Your task to perform on an android device: toggle wifi Image 0: 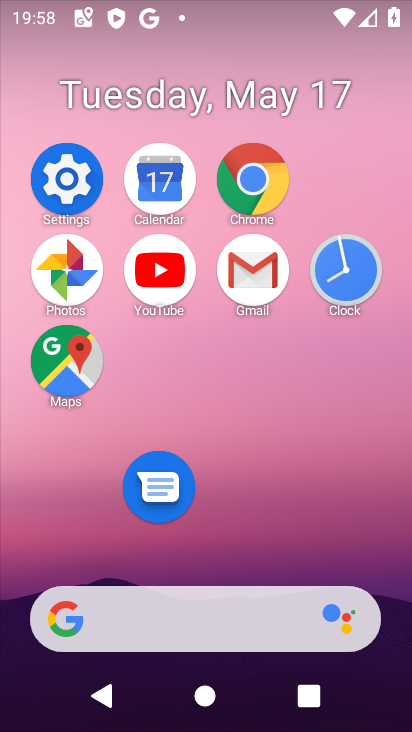
Step 0: click (49, 169)
Your task to perform on an android device: toggle wifi Image 1: 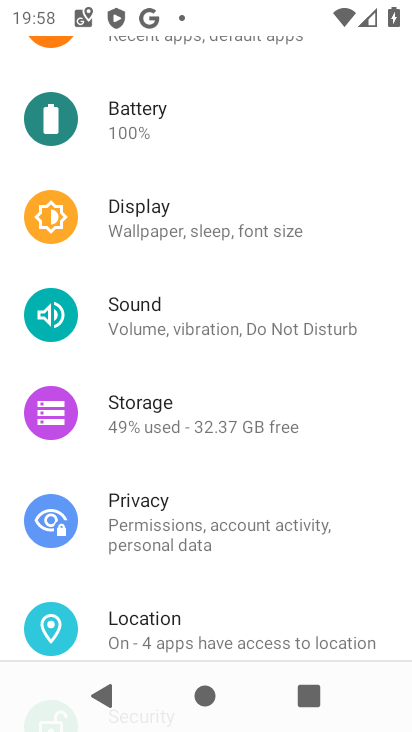
Step 1: drag from (284, 300) to (226, 639)
Your task to perform on an android device: toggle wifi Image 2: 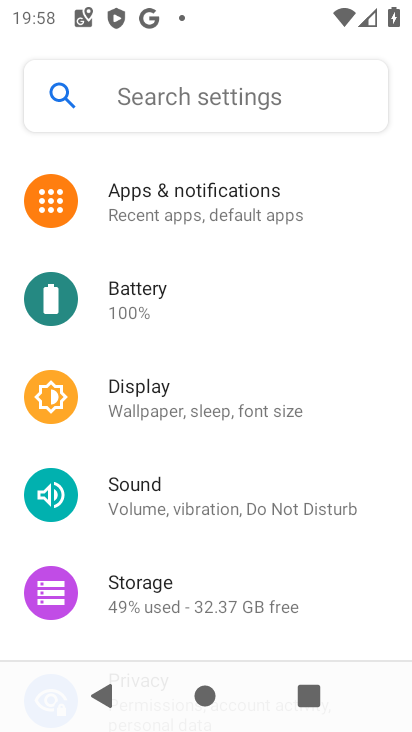
Step 2: drag from (350, 187) to (278, 560)
Your task to perform on an android device: toggle wifi Image 3: 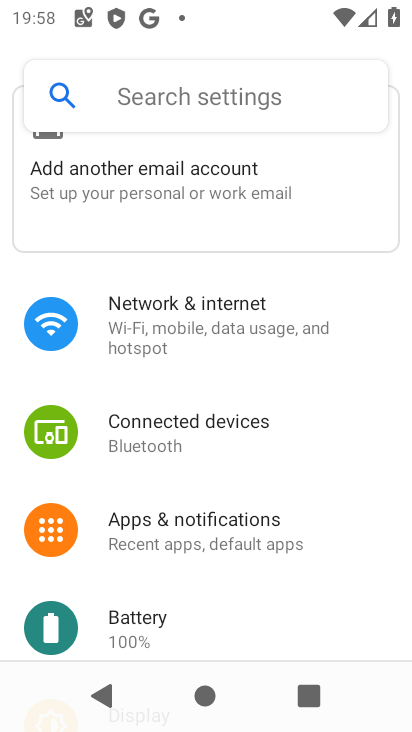
Step 3: click (266, 327)
Your task to perform on an android device: toggle wifi Image 4: 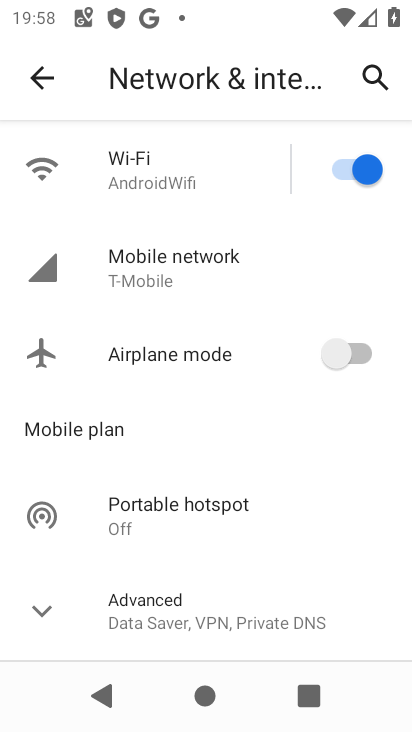
Step 4: click (355, 180)
Your task to perform on an android device: toggle wifi Image 5: 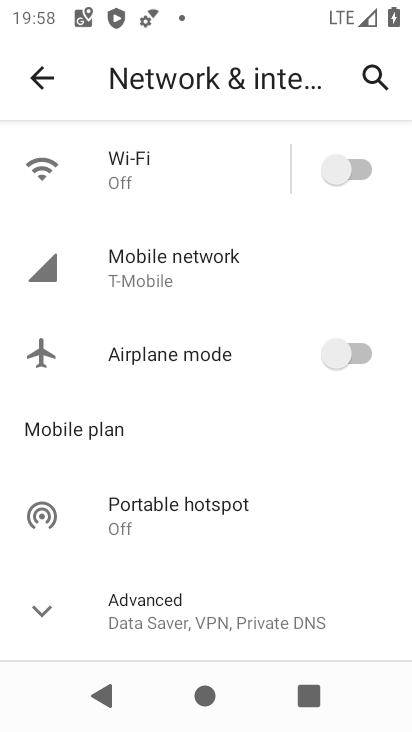
Step 5: task complete